Your task to perform on an android device: check the backup settings in the google photos Image 0: 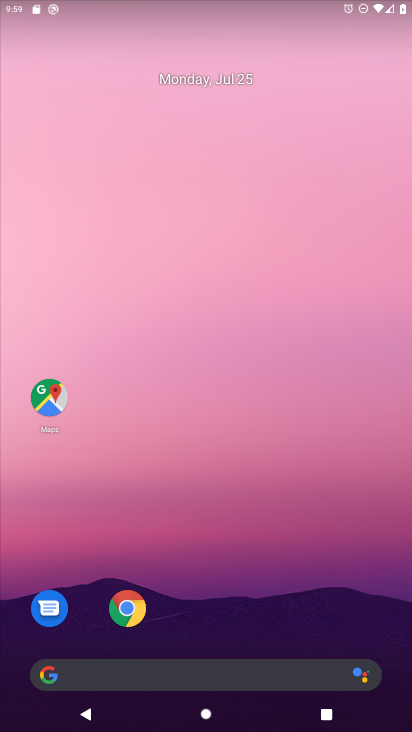
Step 0: drag from (272, 464) to (306, 8)
Your task to perform on an android device: check the backup settings in the google photos Image 1: 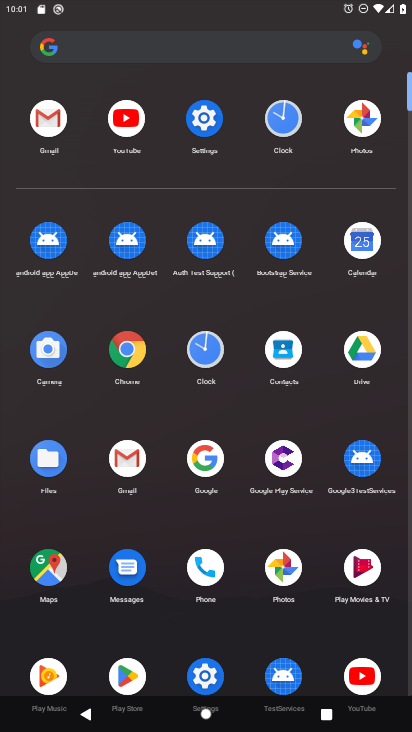
Step 1: click (278, 570)
Your task to perform on an android device: check the backup settings in the google photos Image 2: 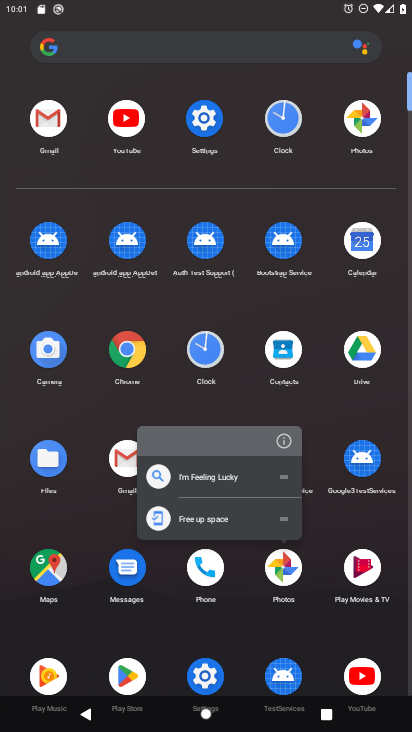
Step 2: click (278, 570)
Your task to perform on an android device: check the backup settings in the google photos Image 3: 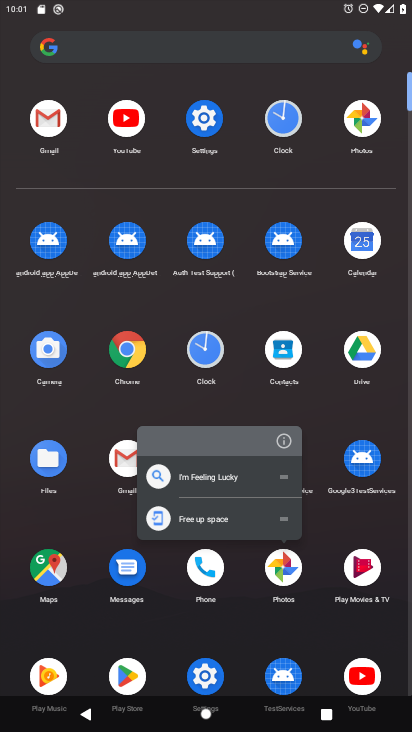
Step 3: click (278, 570)
Your task to perform on an android device: check the backup settings in the google photos Image 4: 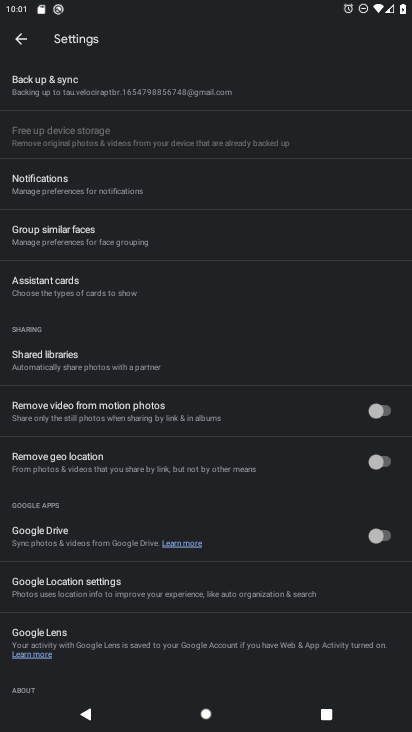
Step 4: click (139, 84)
Your task to perform on an android device: check the backup settings in the google photos Image 5: 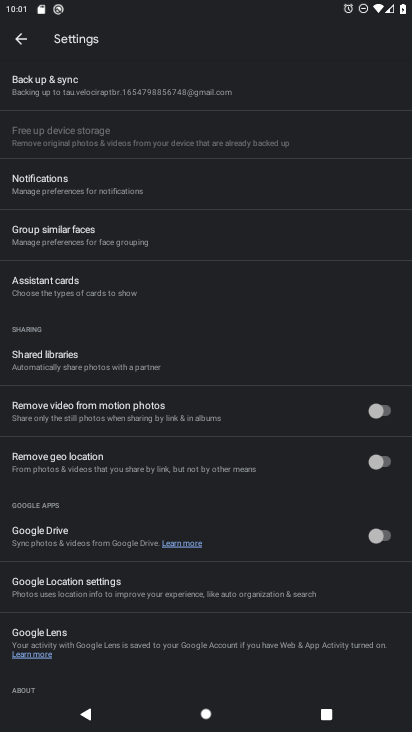
Step 5: click (139, 84)
Your task to perform on an android device: check the backup settings in the google photos Image 6: 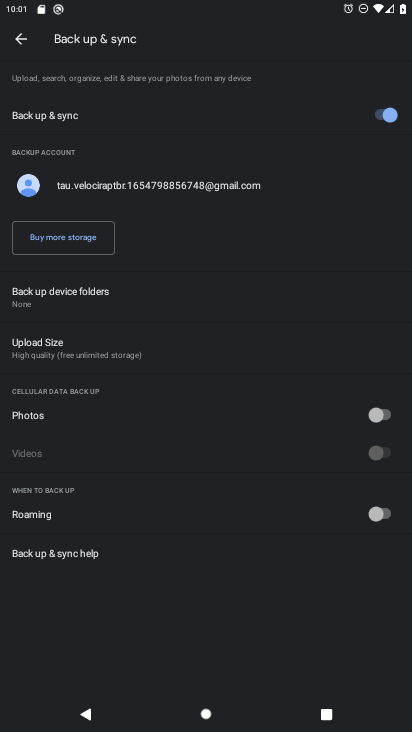
Step 6: task complete